Your task to perform on an android device: turn off javascript in the chrome app Image 0: 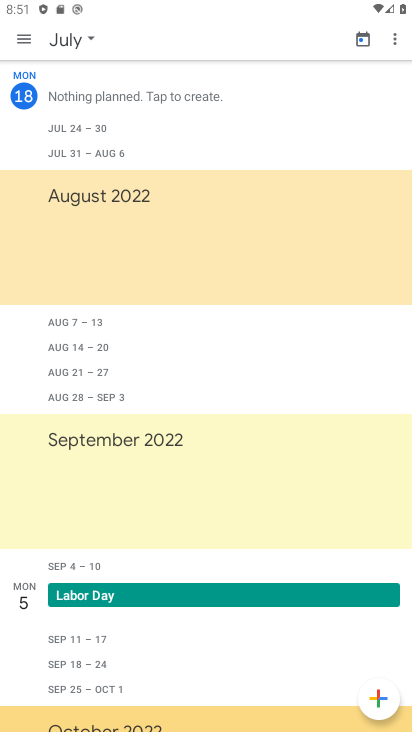
Step 0: press back button
Your task to perform on an android device: turn off javascript in the chrome app Image 1: 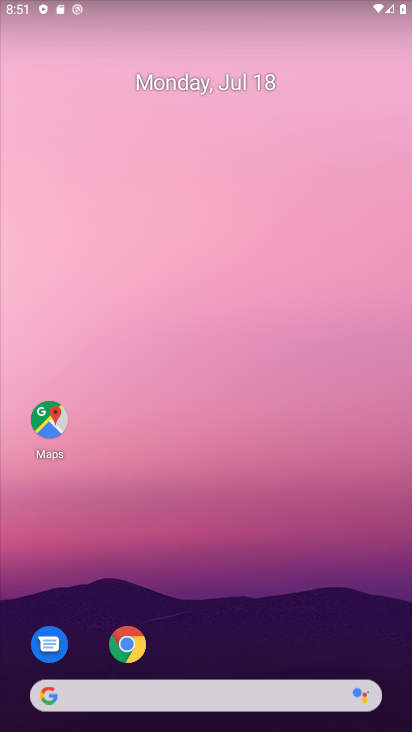
Step 1: click (125, 640)
Your task to perform on an android device: turn off javascript in the chrome app Image 2: 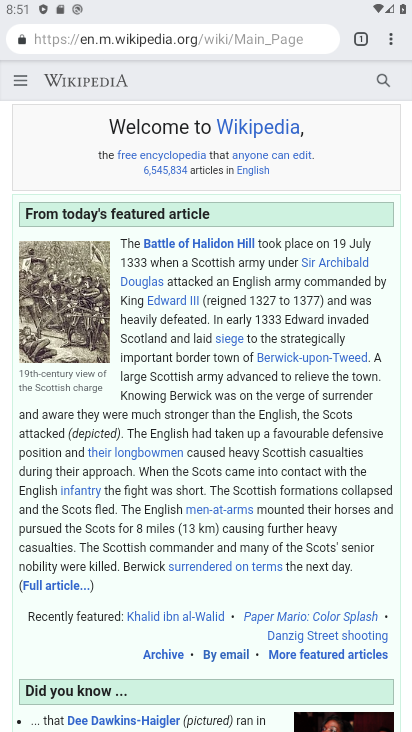
Step 2: drag from (394, 33) to (264, 472)
Your task to perform on an android device: turn off javascript in the chrome app Image 3: 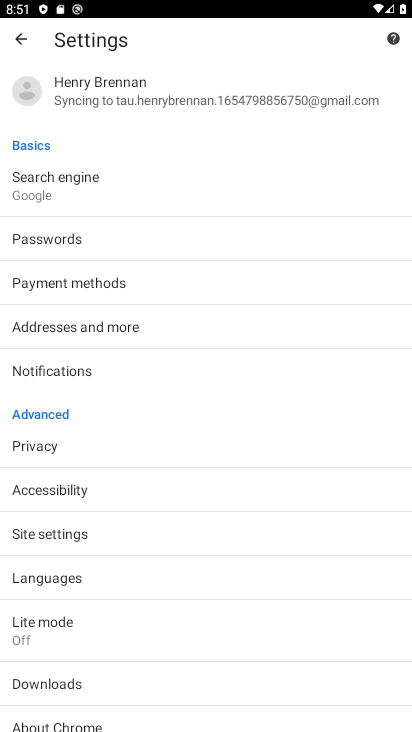
Step 3: click (104, 536)
Your task to perform on an android device: turn off javascript in the chrome app Image 4: 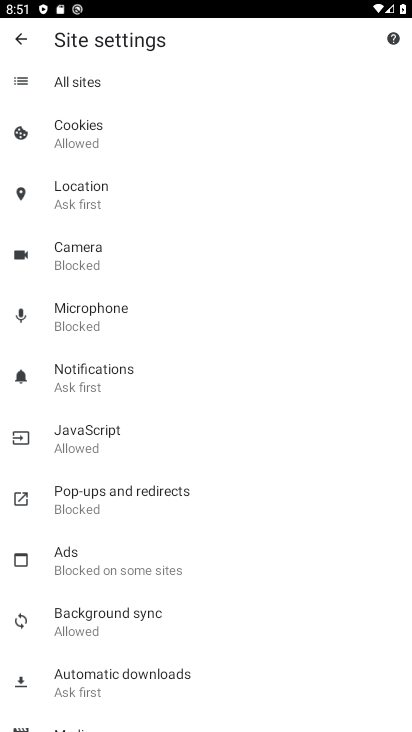
Step 4: click (97, 427)
Your task to perform on an android device: turn off javascript in the chrome app Image 5: 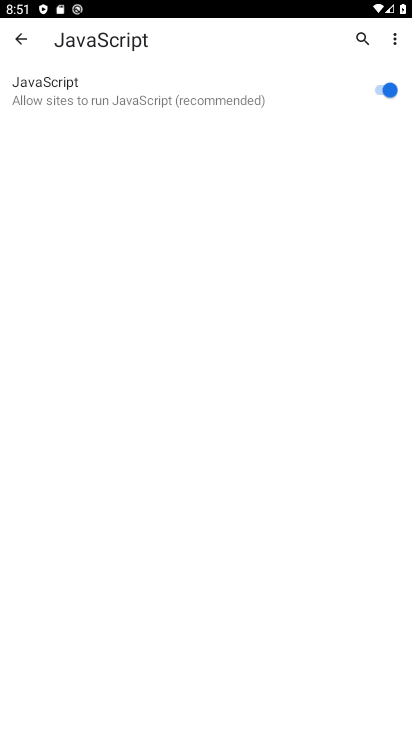
Step 5: click (396, 82)
Your task to perform on an android device: turn off javascript in the chrome app Image 6: 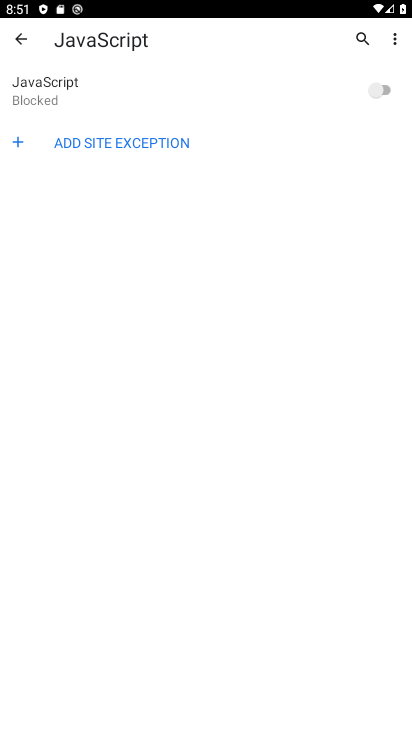
Step 6: task complete